Your task to perform on an android device: turn off notifications in google photos Image 0: 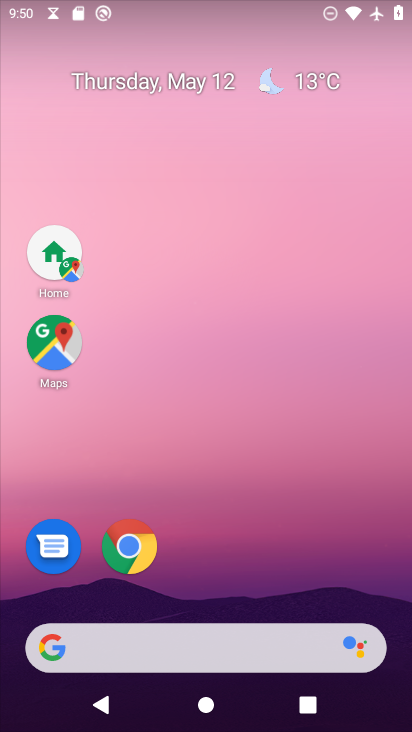
Step 0: drag from (173, 654) to (322, 150)
Your task to perform on an android device: turn off notifications in google photos Image 1: 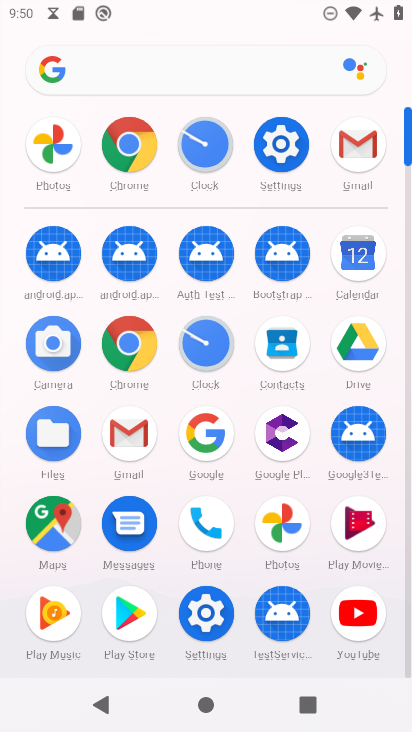
Step 1: click (285, 536)
Your task to perform on an android device: turn off notifications in google photos Image 2: 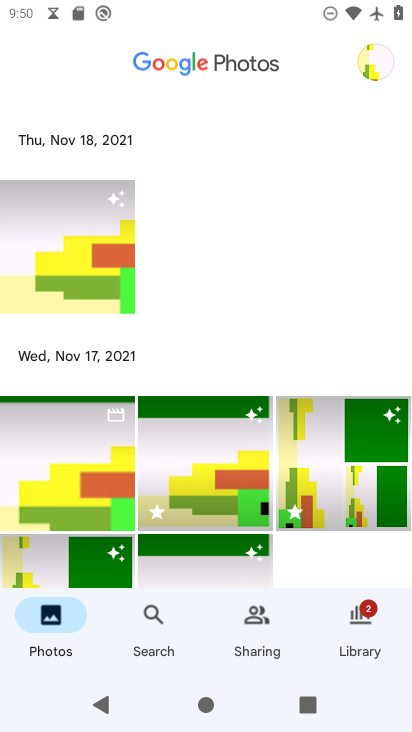
Step 2: click (377, 72)
Your task to perform on an android device: turn off notifications in google photos Image 3: 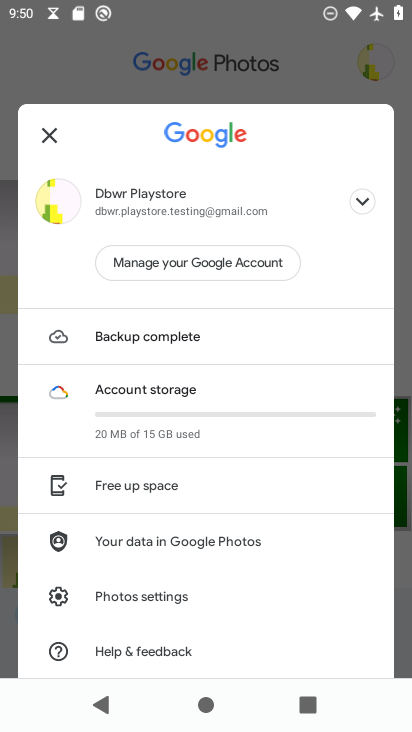
Step 3: click (163, 602)
Your task to perform on an android device: turn off notifications in google photos Image 4: 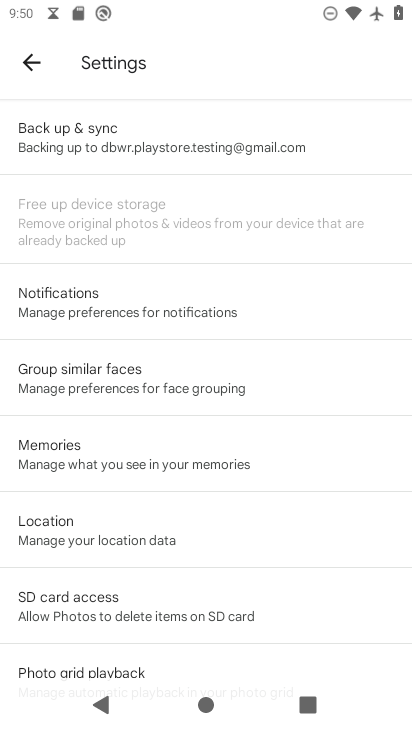
Step 4: click (189, 305)
Your task to perform on an android device: turn off notifications in google photos Image 5: 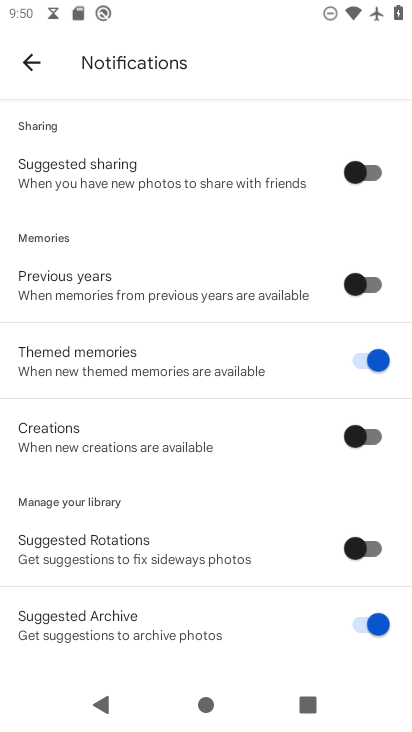
Step 5: drag from (134, 619) to (323, 179)
Your task to perform on an android device: turn off notifications in google photos Image 6: 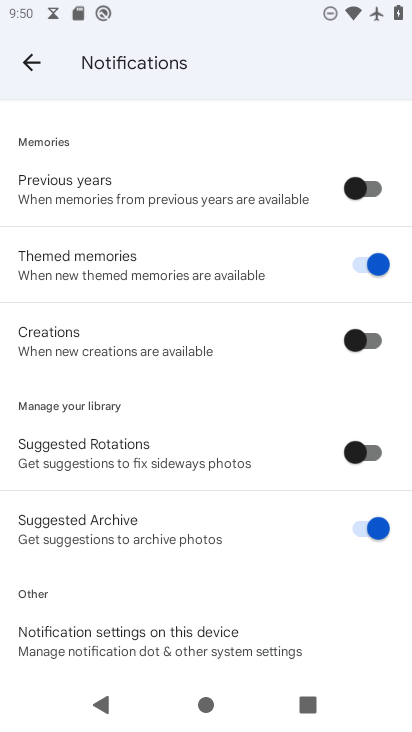
Step 6: click (122, 634)
Your task to perform on an android device: turn off notifications in google photos Image 7: 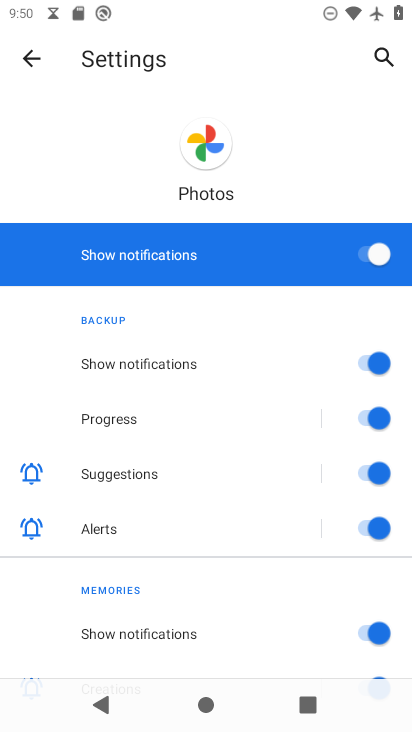
Step 7: click (365, 257)
Your task to perform on an android device: turn off notifications in google photos Image 8: 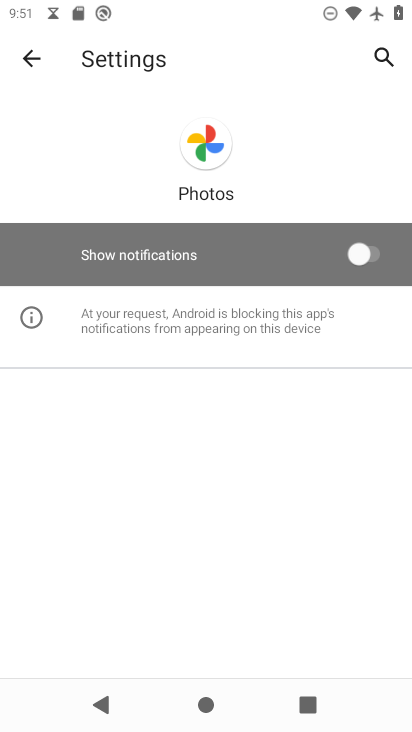
Step 8: task complete